Your task to perform on an android device: What is the news today? Image 0: 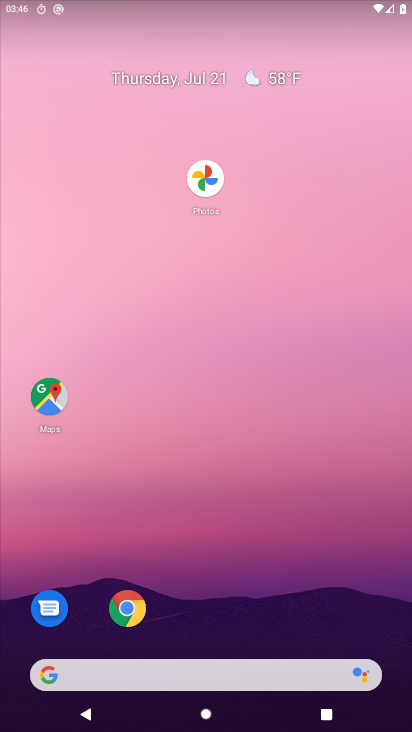
Step 0: press home button
Your task to perform on an android device: What is the news today? Image 1: 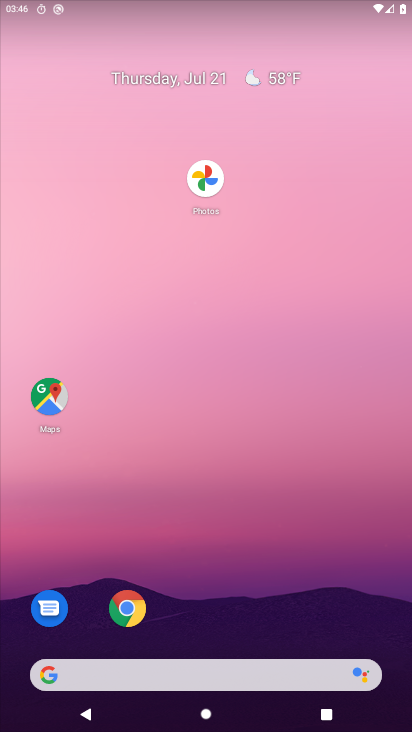
Step 1: drag from (16, 482) to (228, 486)
Your task to perform on an android device: What is the news today? Image 2: 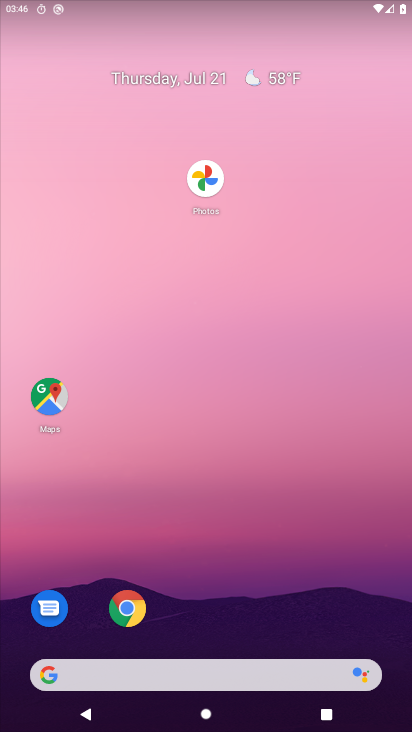
Step 2: drag from (10, 276) to (401, 300)
Your task to perform on an android device: What is the news today? Image 3: 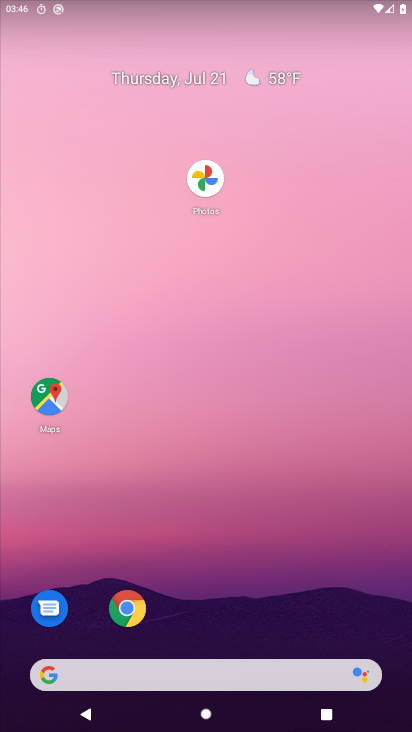
Step 3: drag from (27, 302) to (405, 301)
Your task to perform on an android device: What is the news today? Image 4: 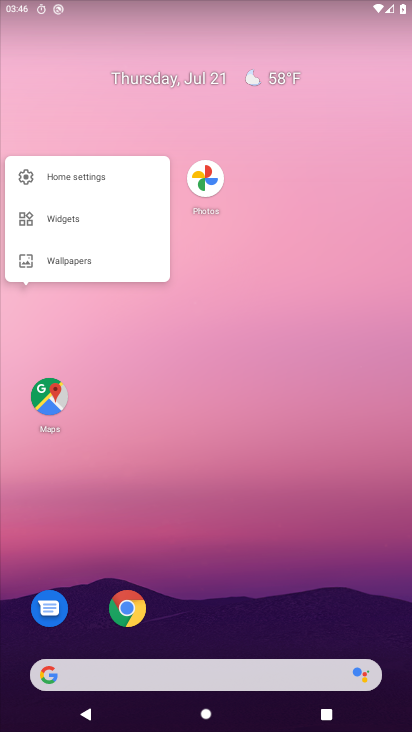
Step 4: click (404, 337)
Your task to perform on an android device: What is the news today? Image 5: 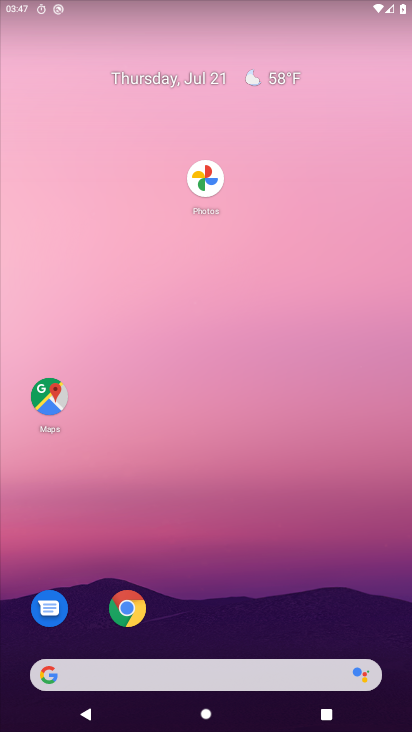
Step 5: task complete